Your task to perform on an android device: open app "Move to iOS" (install if not already installed) and go to login screen Image 0: 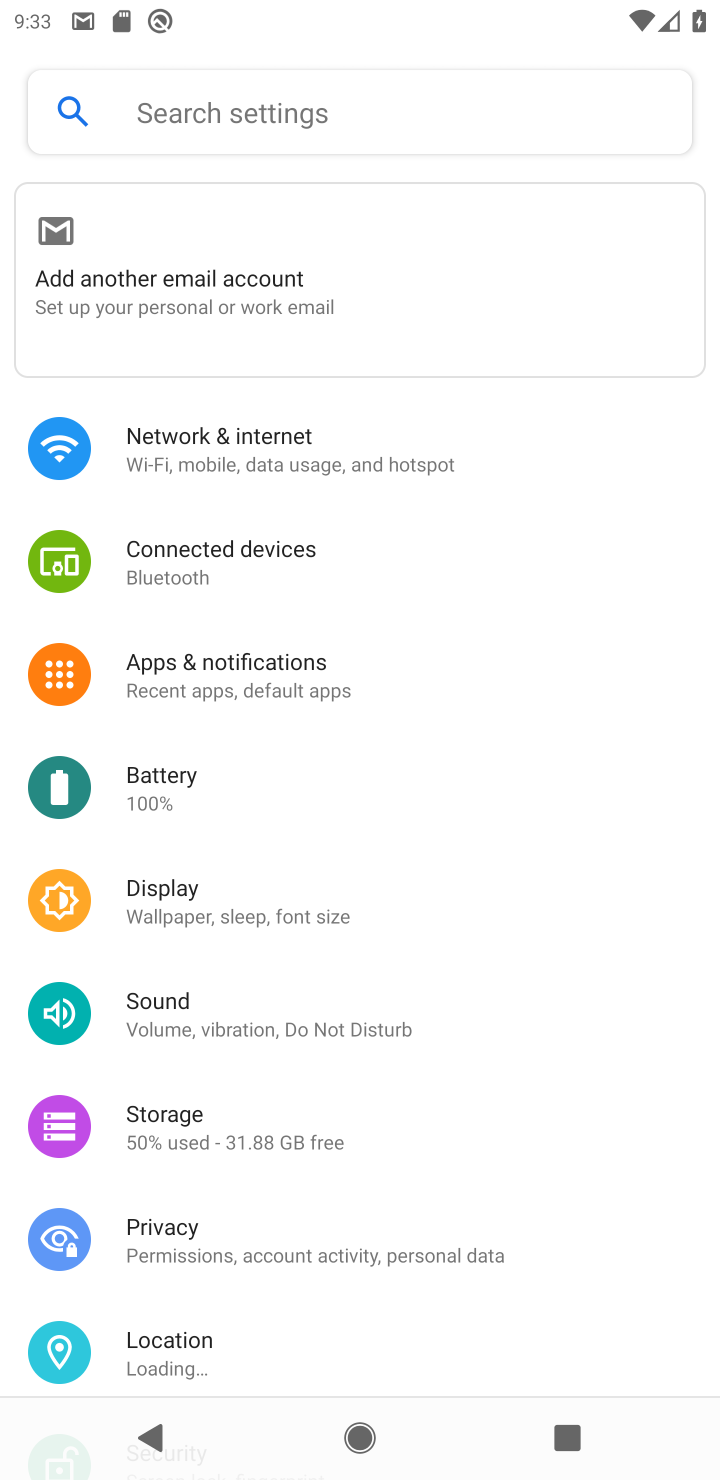
Step 0: press home button
Your task to perform on an android device: open app "Move to iOS" (install if not already installed) and go to login screen Image 1: 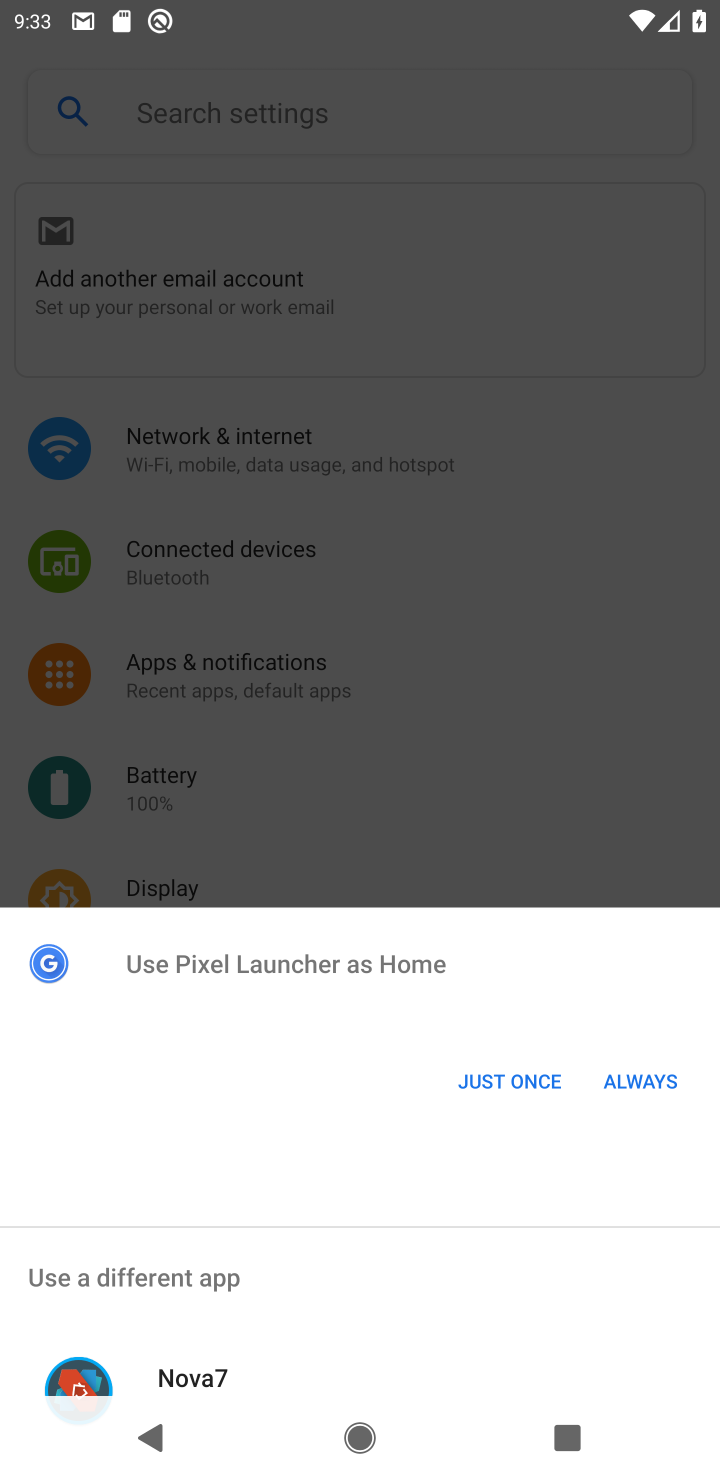
Step 1: press back button
Your task to perform on an android device: open app "Move to iOS" (install if not already installed) and go to login screen Image 2: 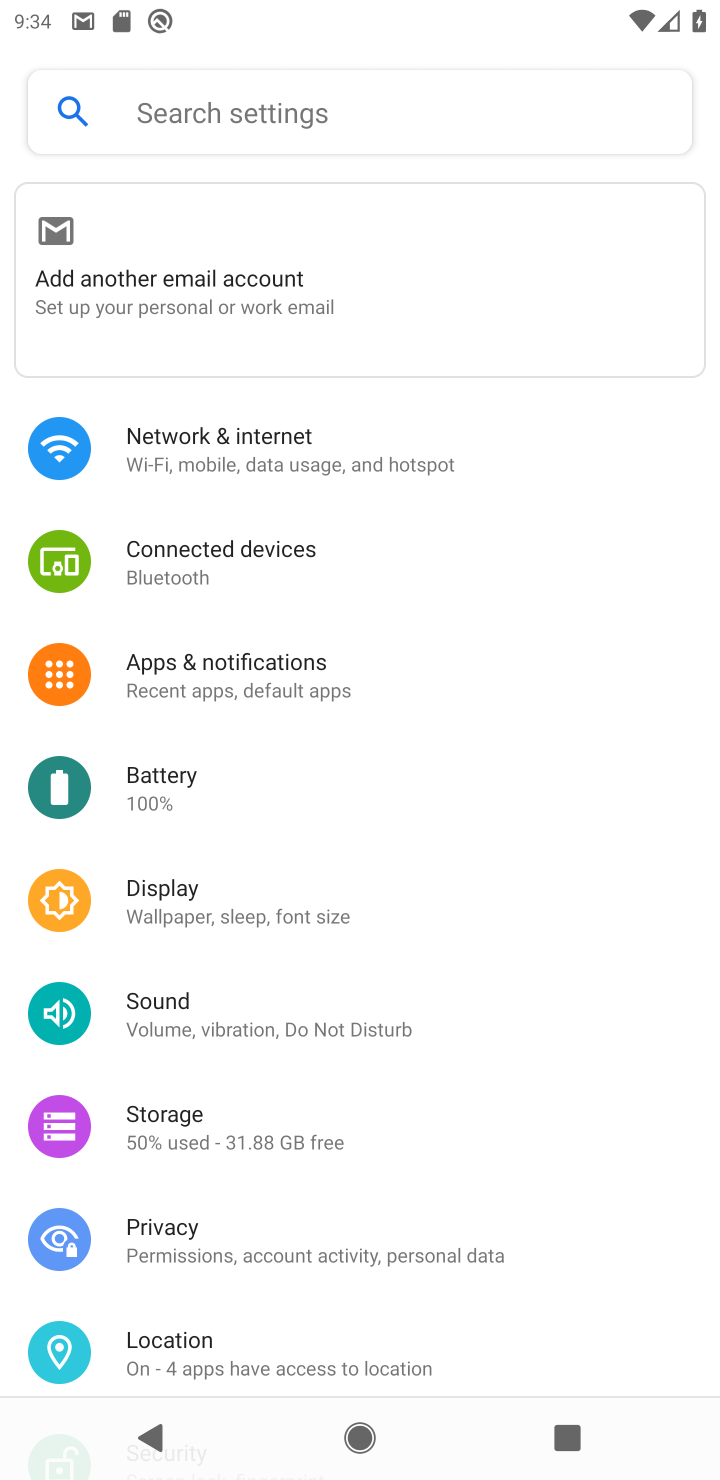
Step 2: press back button
Your task to perform on an android device: open app "Move to iOS" (install if not already installed) and go to login screen Image 3: 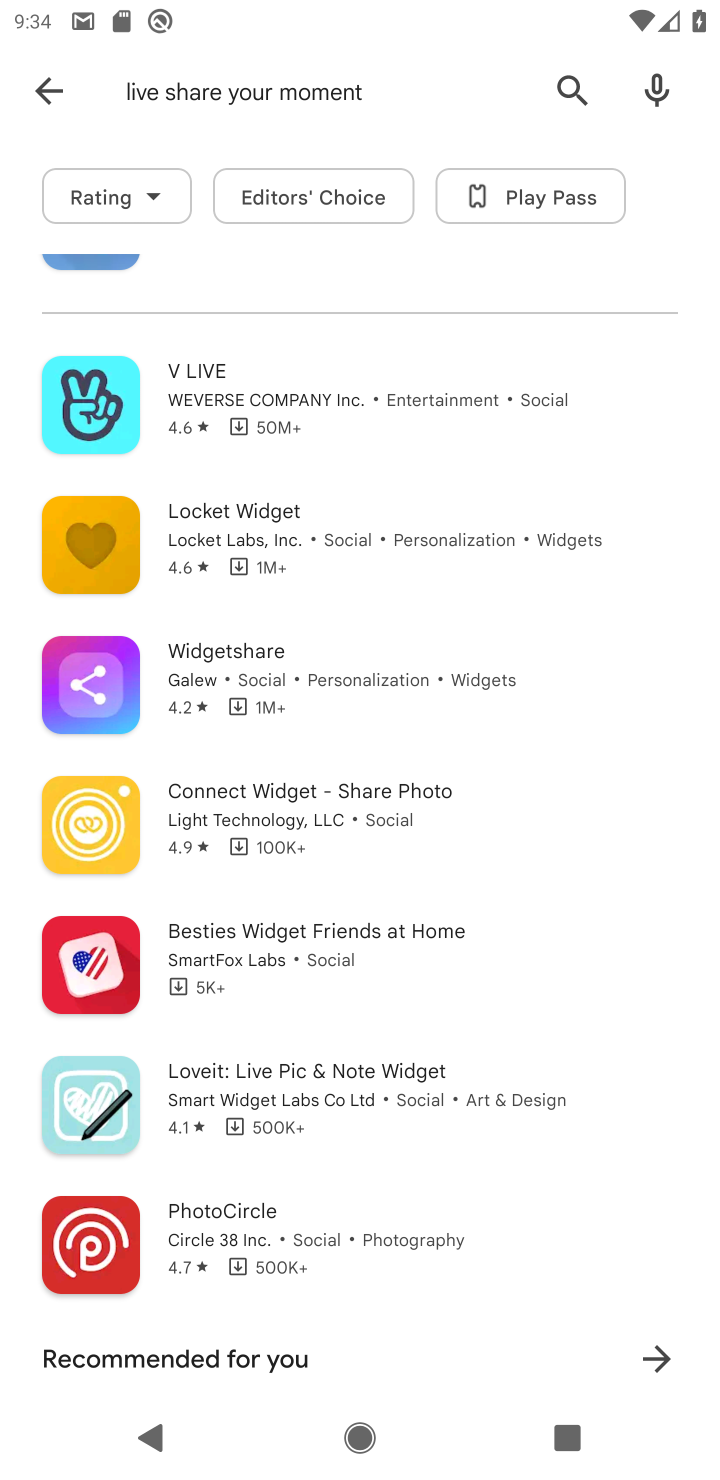
Step 3: click (565, 81)
Your task to perform on an android device: open app "Move to iOS" (install if not already installed) and go to login screen Image 4: 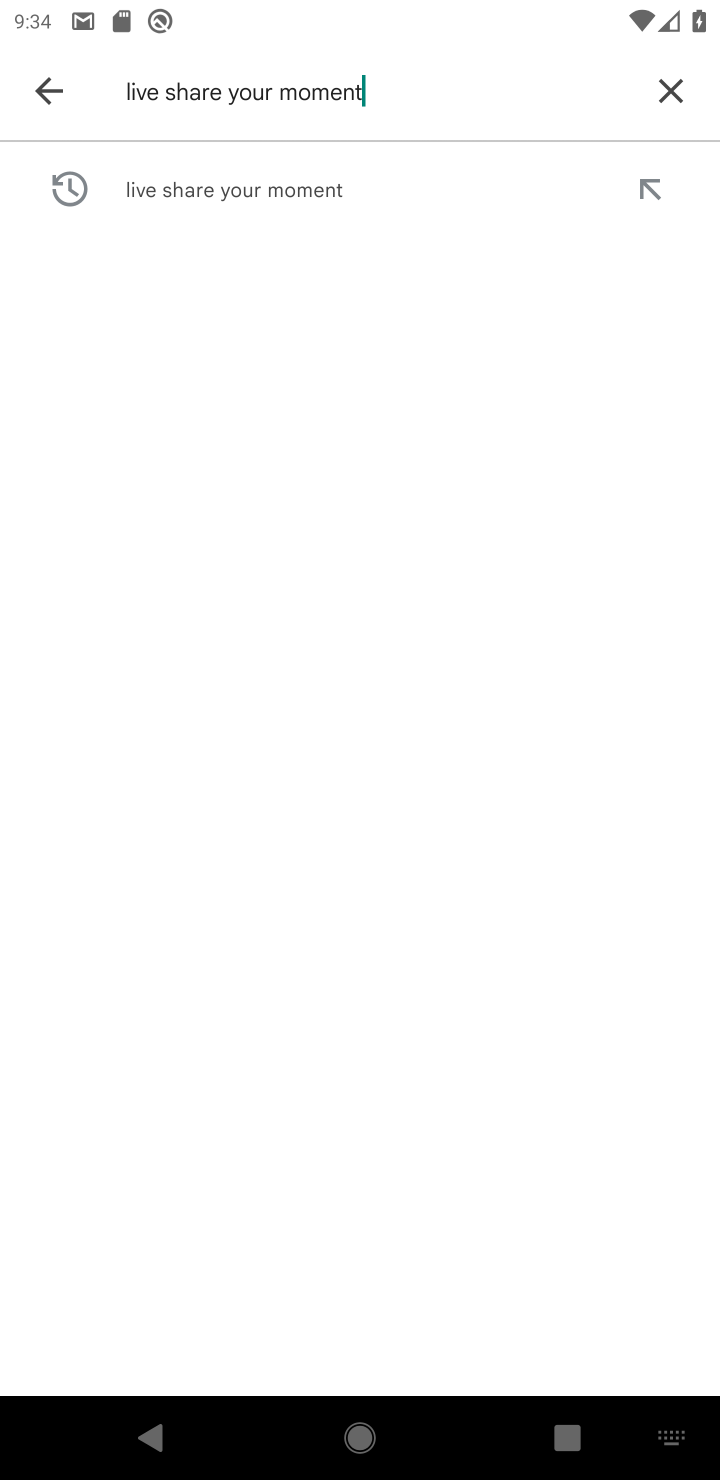
Step 4: click (670, 90)
Your task to perform on an android device: open app "Move to iOS" (install if not already installed) and go to login screen Image 5: 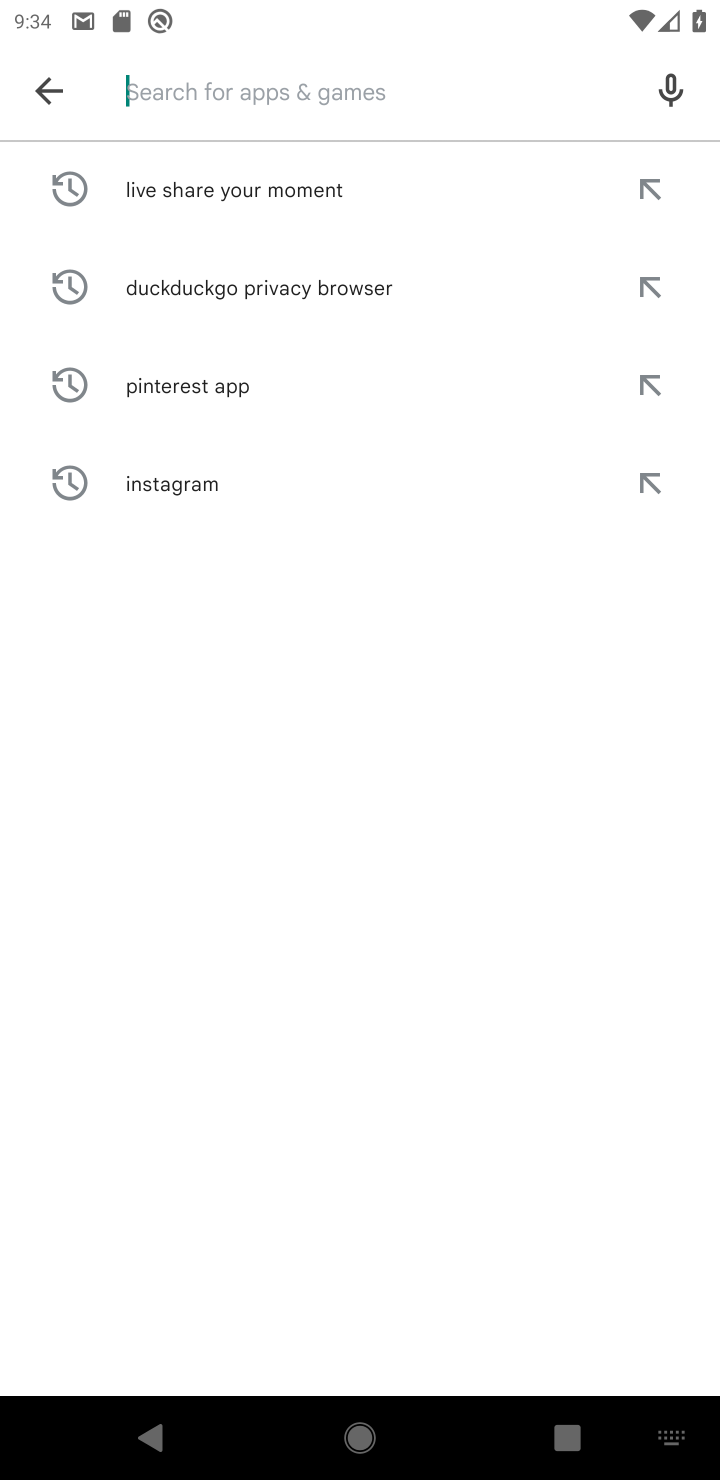
Step 5: type "move to ios "
Your task to perform on an android device: open app "Move to iOS" (install if not already installed) and go to login screen Image 6: 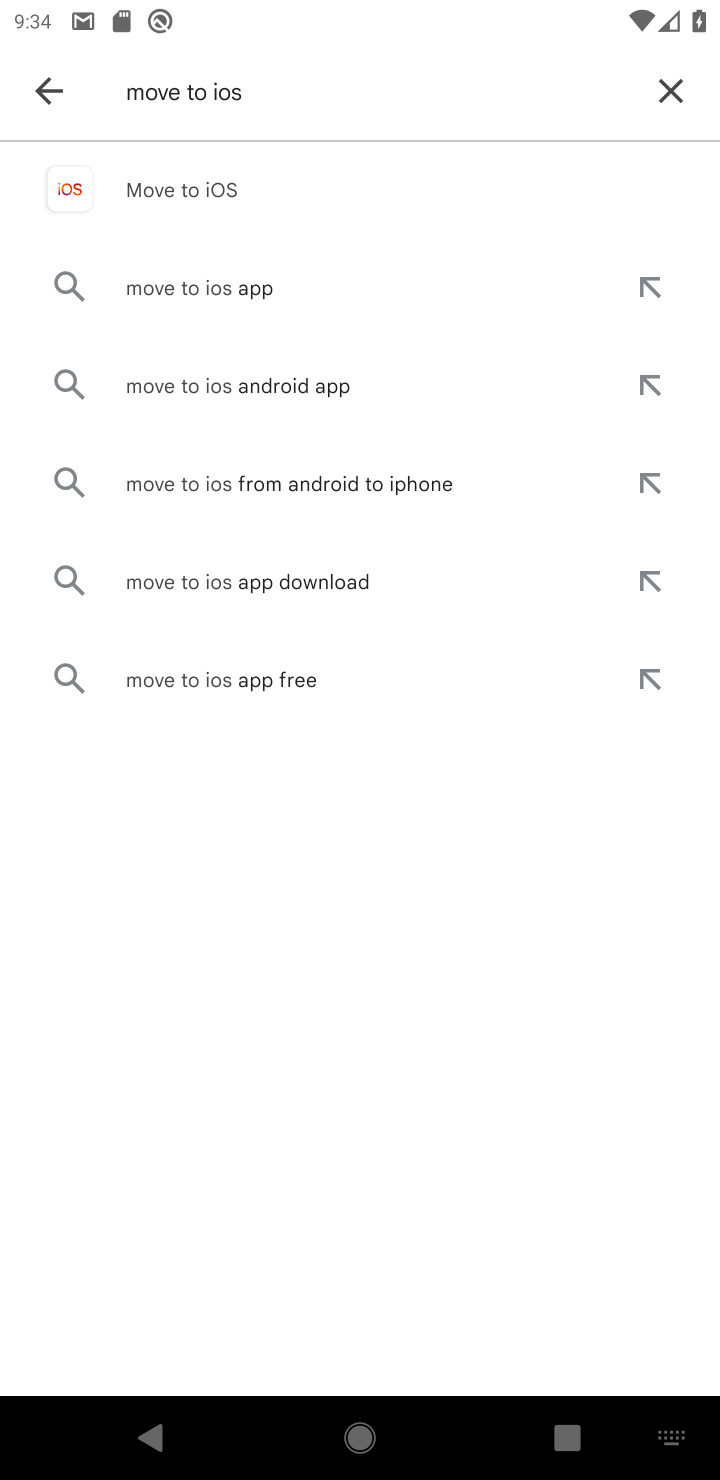
Step 6: click (246, 189)
Your task to perform on an android device: open app "Move to iOS" (install if not already installed) and go to login screen Image 7: 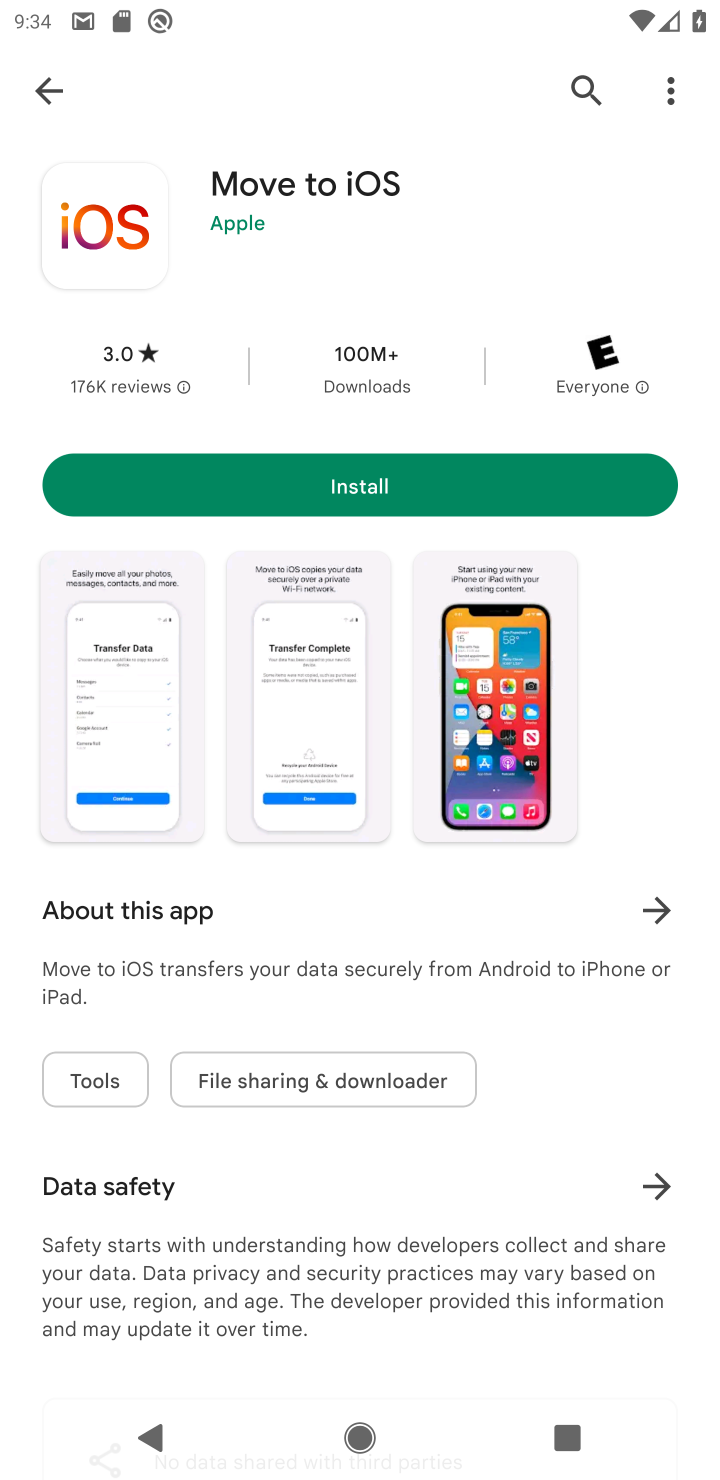
Step 7: click (382, 477)
Your task to perform on an android device: open app "Move to iOS" (install if not already installed) and go to login screen Image 8: 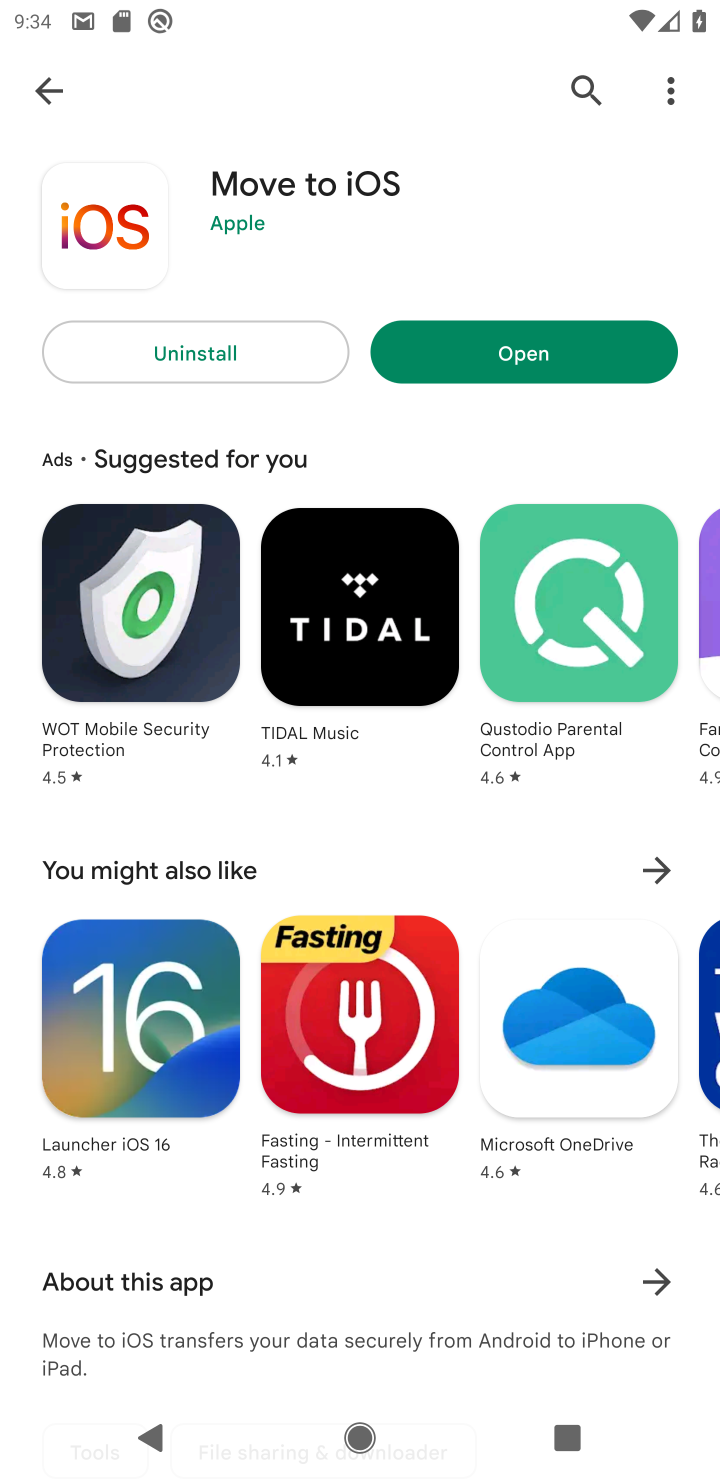
Step 8: click (541, 361)
Your task to perform on an android device: open app "Move to iOS" (install if not already installed) and go to login screen Image 9: 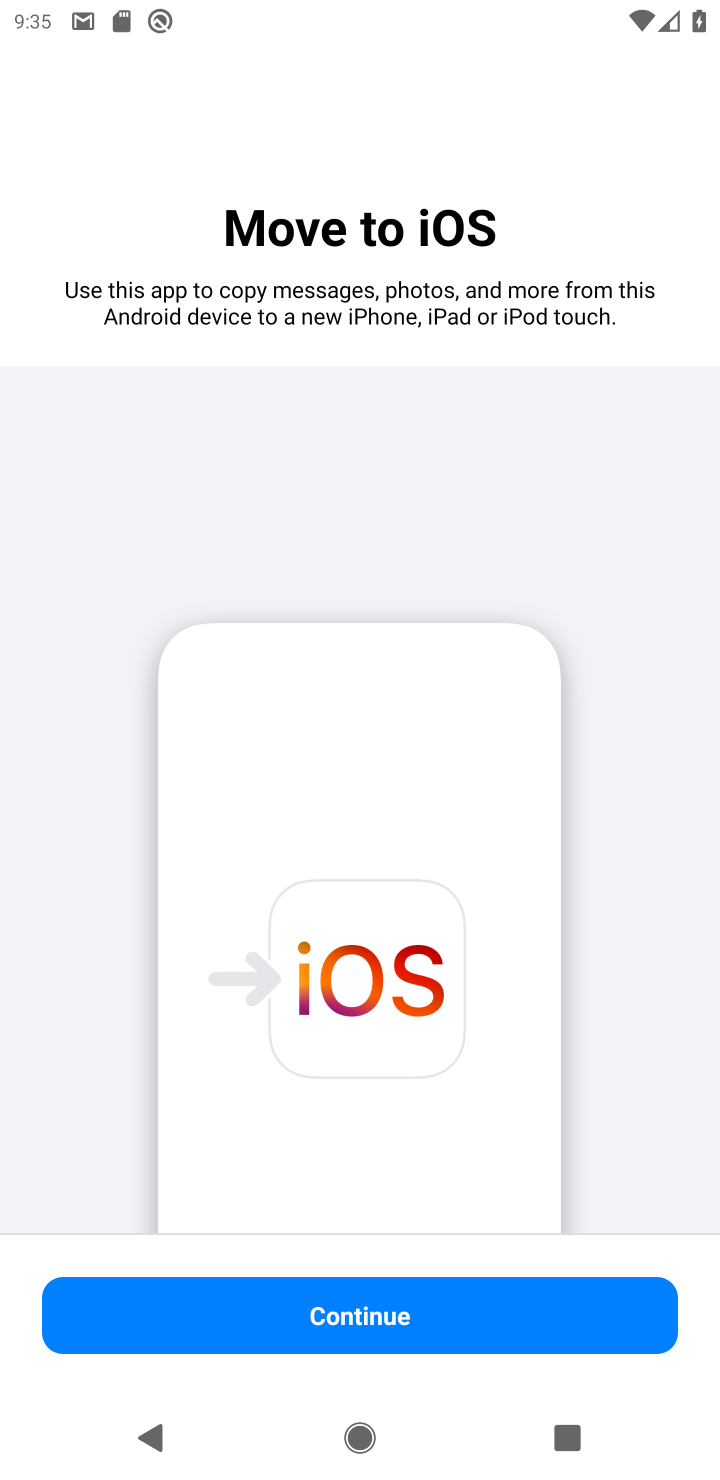
Step 9: click (501, 1325)
Your task to perform on an android device: open app "Move to iOS" (install if not already installed) and go to login screen Image 10: 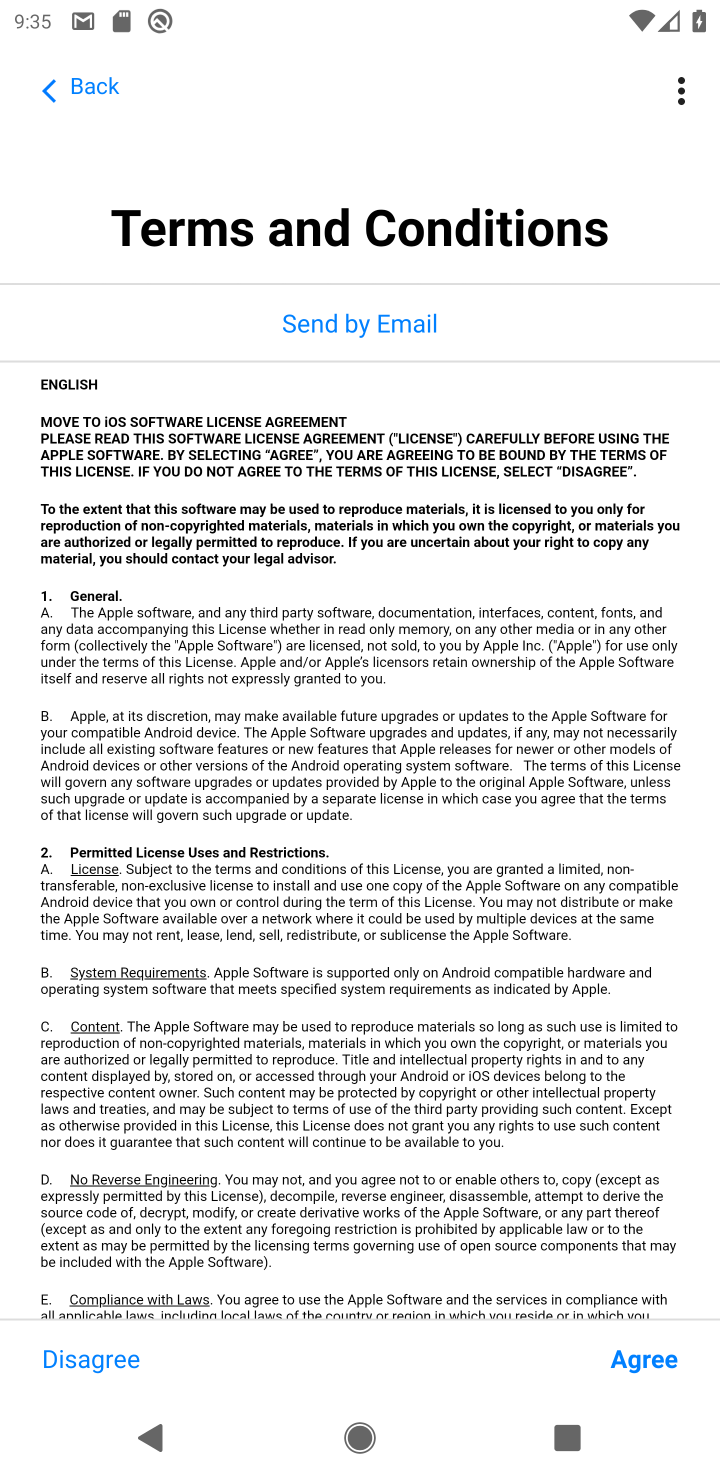
Step 10: click (663, 1364)
Your task to perform on an android device: open app "Move to iOS" (install if not already installed) and go to login screen Image 11: 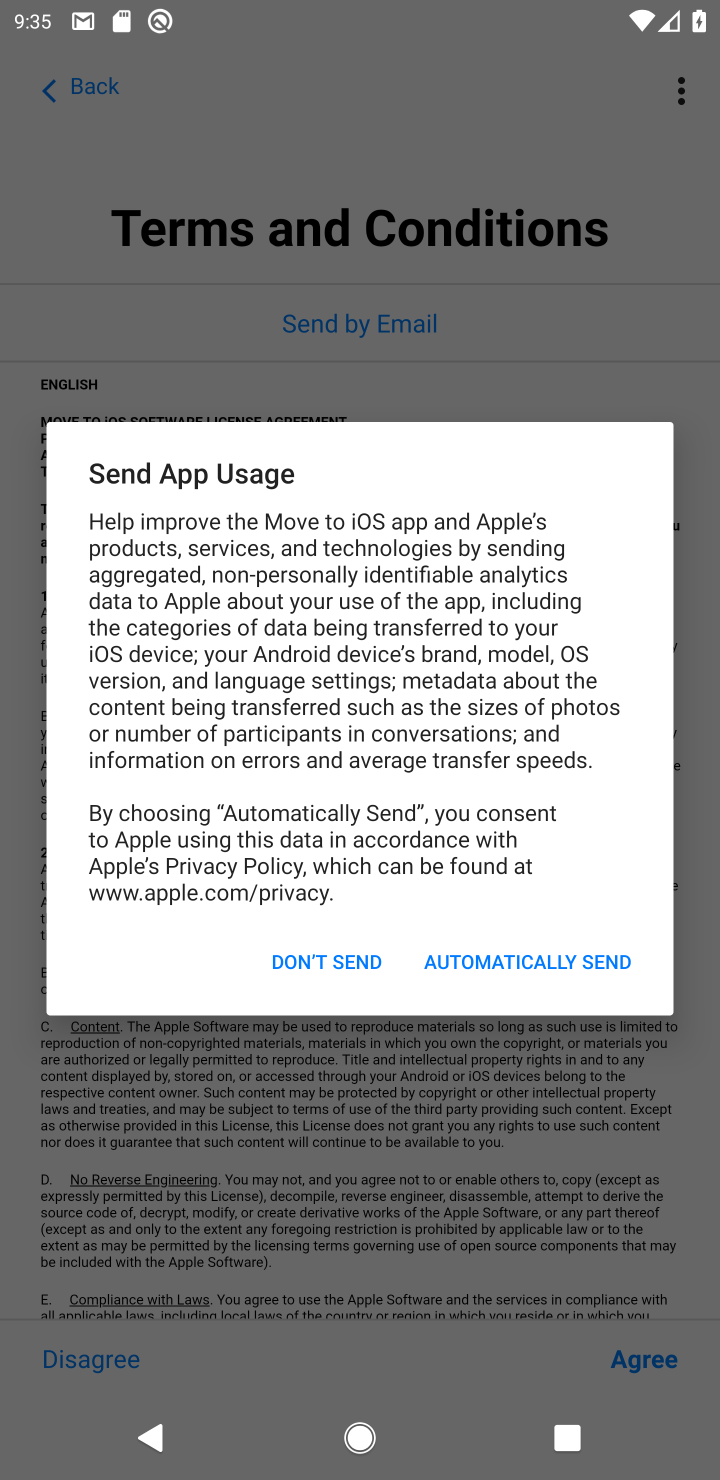
Step 11: click (320, 955)
Your task to perform on an android device: open app "Move to iOS" (install if not already installed) and go to login screen Image 12: 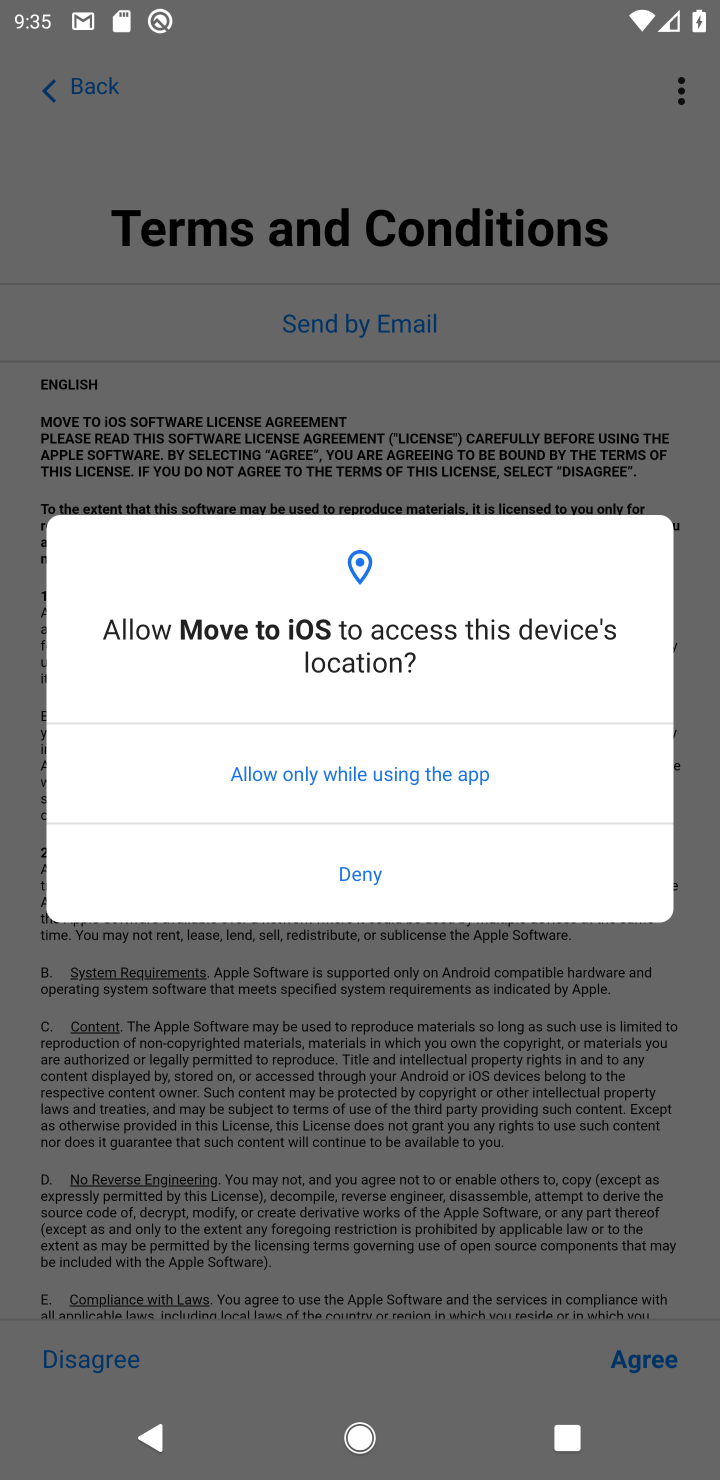
Step 12: click (348, 867)
Your task to perform on an android device: open app "Move to iOS" (install if not already installed) and go to login screen Image 13: 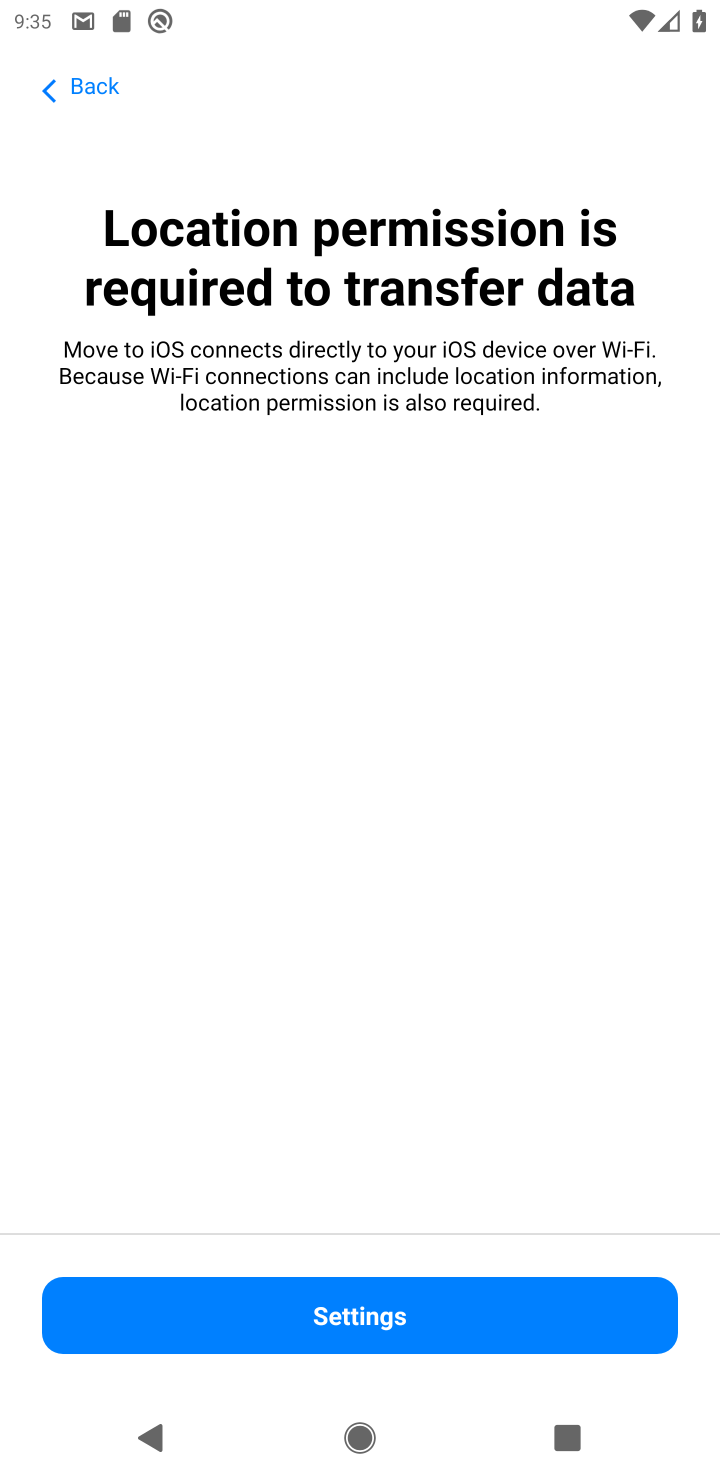
Step 13: click (577, 1324)
Your task to perform on an android device: open app "Move to iOS" (install if not already installed) and go to login screen Image 14: 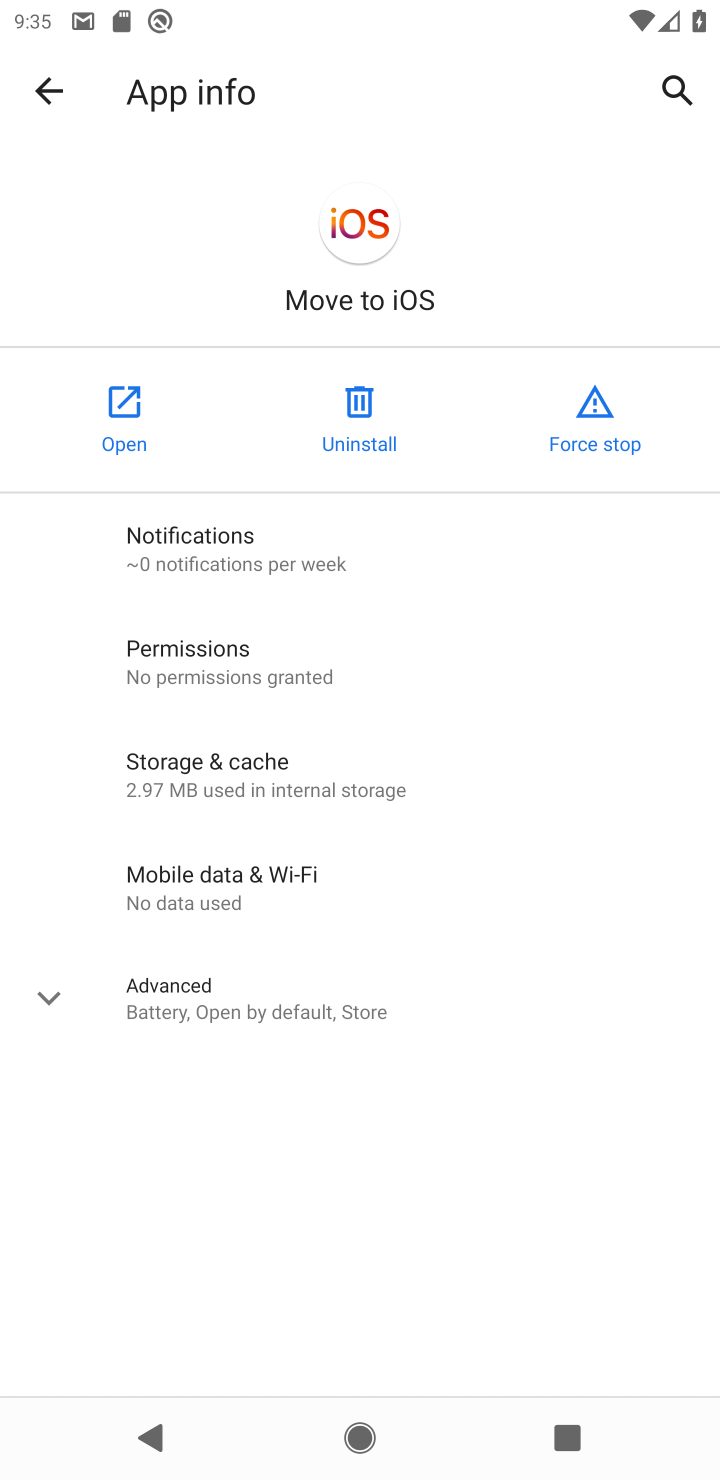
Step 14: click (48, 87)
Your task to perform on an android device: open app "Move to iOS" (install if not already installed) and go to login screen Image 15: 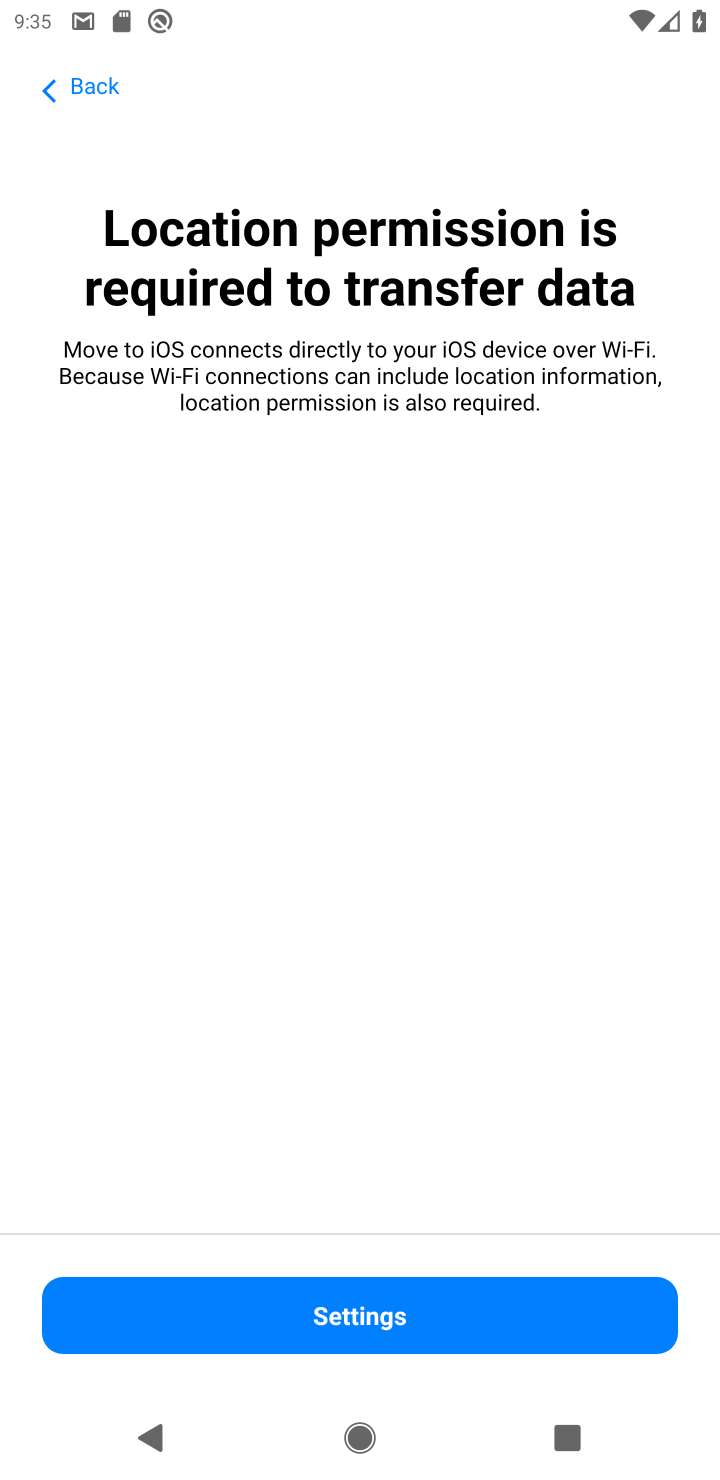
Step 15: task complete